Your task to perform on an android device: Search for "amazon basics triple a" on amazon.com, select the first entry, add it to the cart, then select checkout. Image 0: 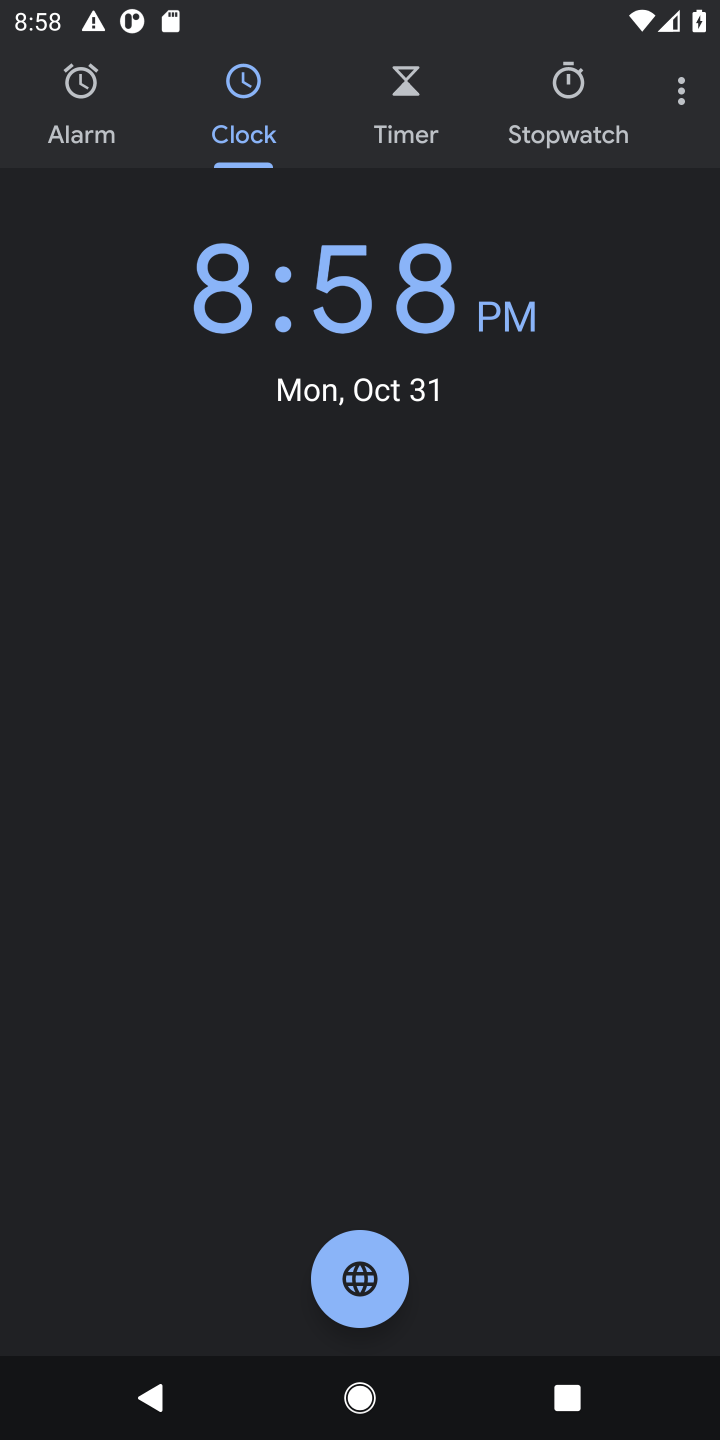
Step 0: press home button
Your task to perform on an android device: Search for "amazon basics triple a" on amazon.com, select the first entry, add it to the cart, then select checkout. Image 1: 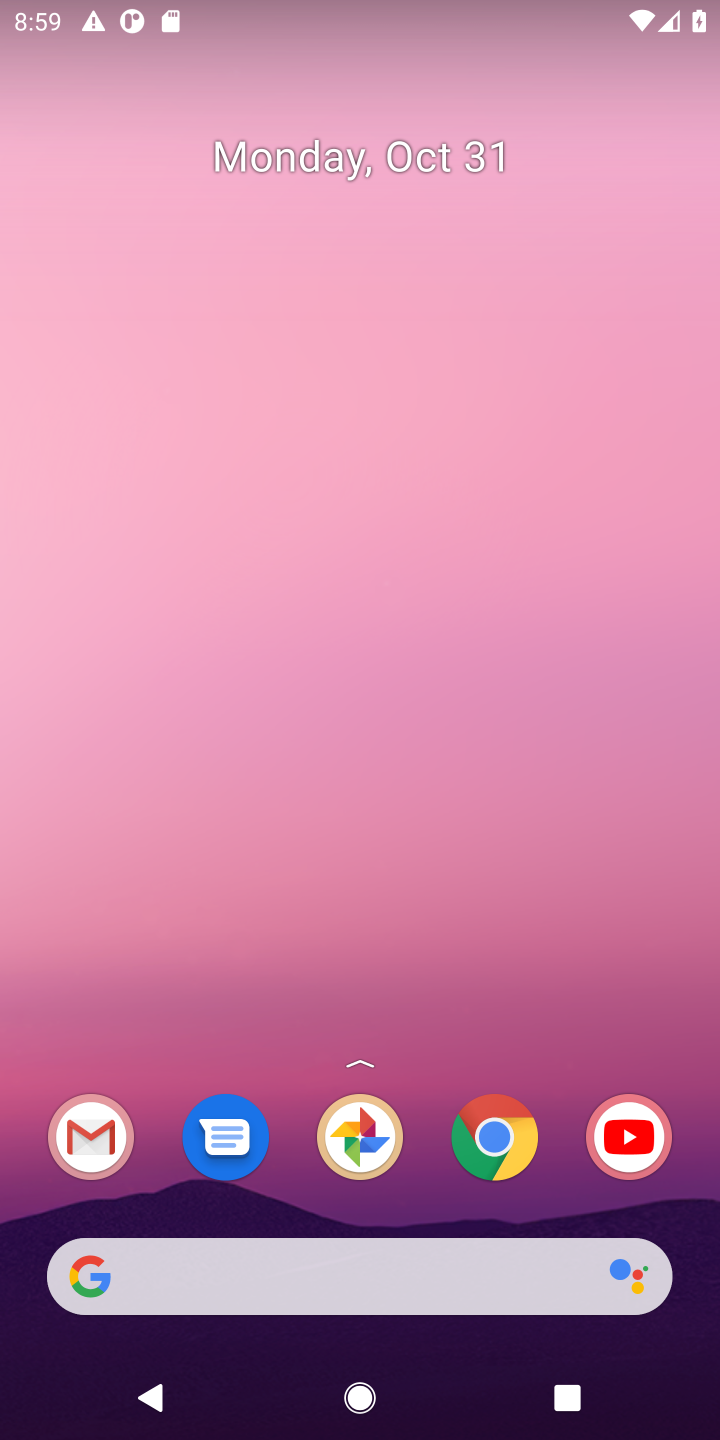
Step 1: click (507, 1129)
Your task to perform on an android device: Search for "amazon basics triple a" on amazon.com, select the first entry, add it to the cart, then select checkout. Image 2: 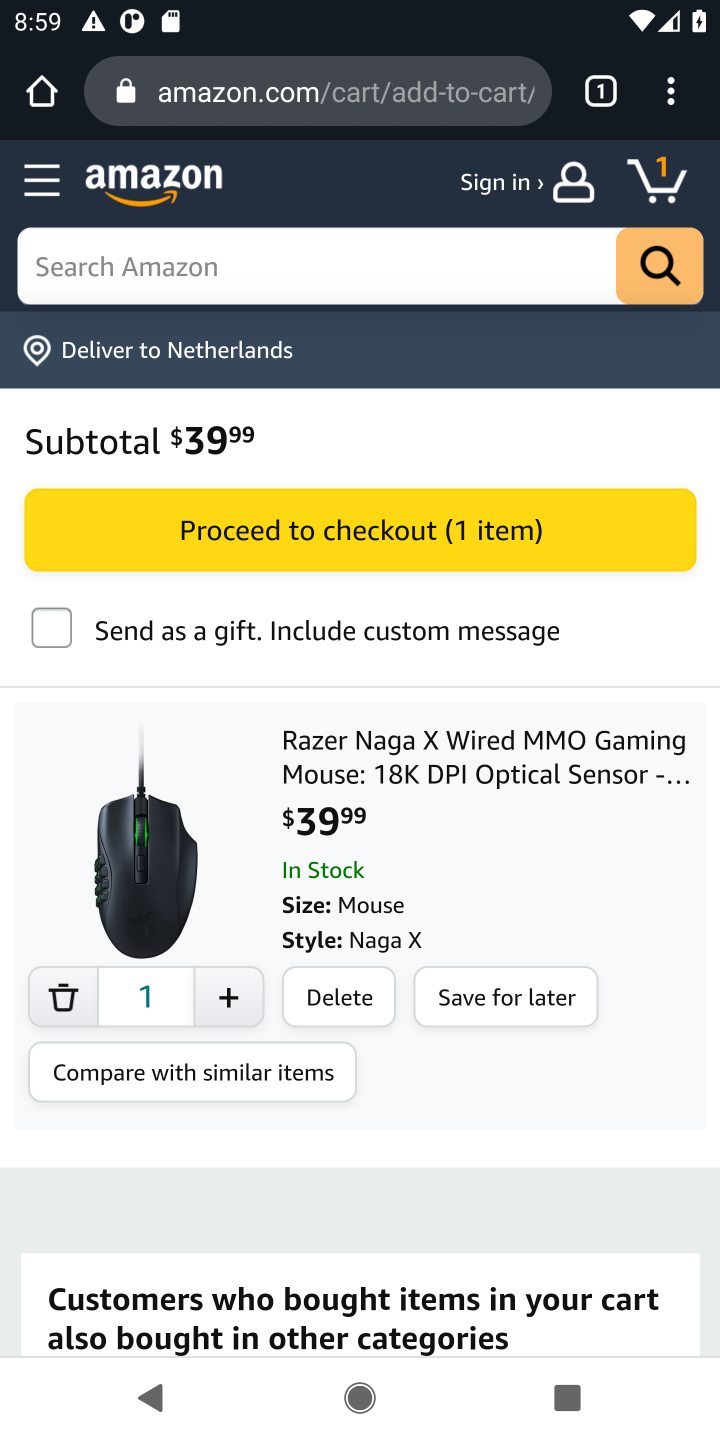
Step 2: click (278, 278)
Your task to perform on an android device: Search for "amazon basics triple a" on amazon.com, select the first entry, add it to the cart, then select checkout. Image 3: 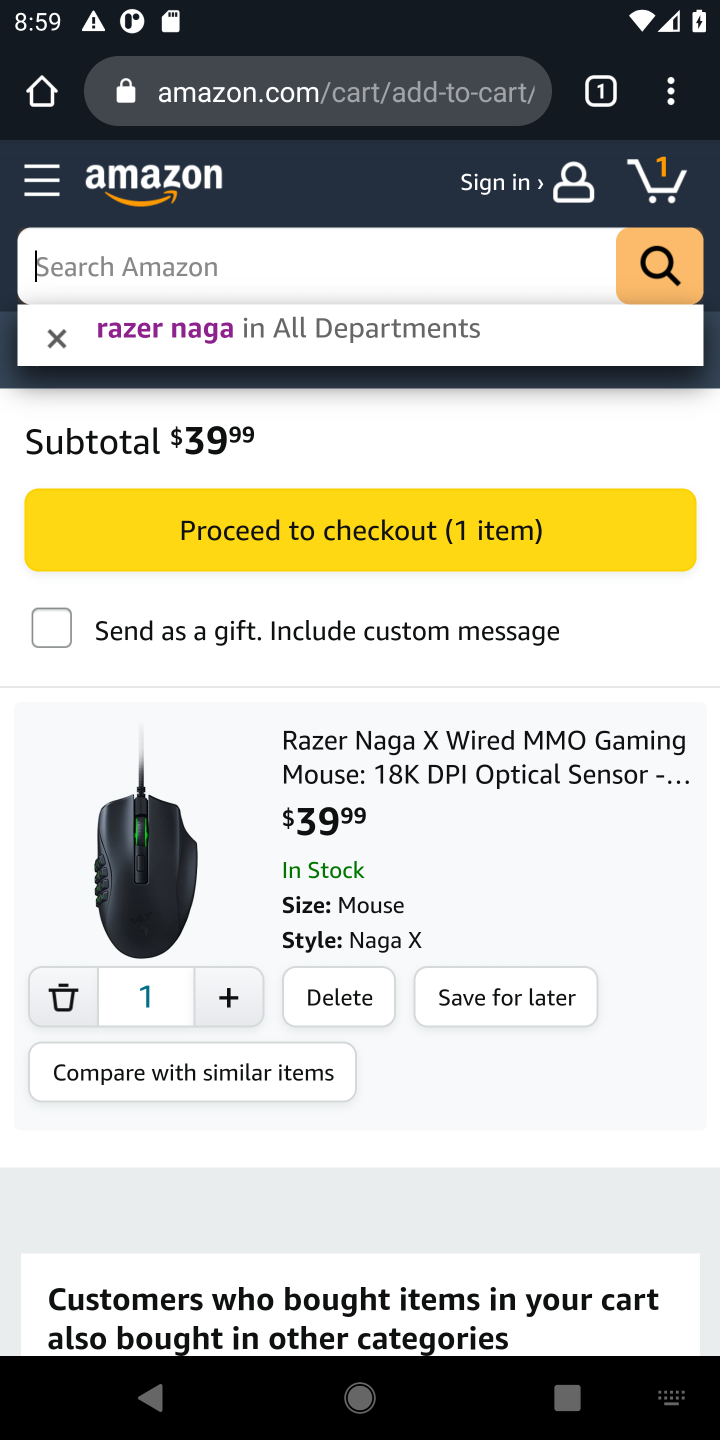
Step 3: type "amazon basics triple a"
Your task to perform on an android device: Search for "amazon basics triple a" on amazon.com, select the first entry, add it to the cart, then select checkout. Image 4: 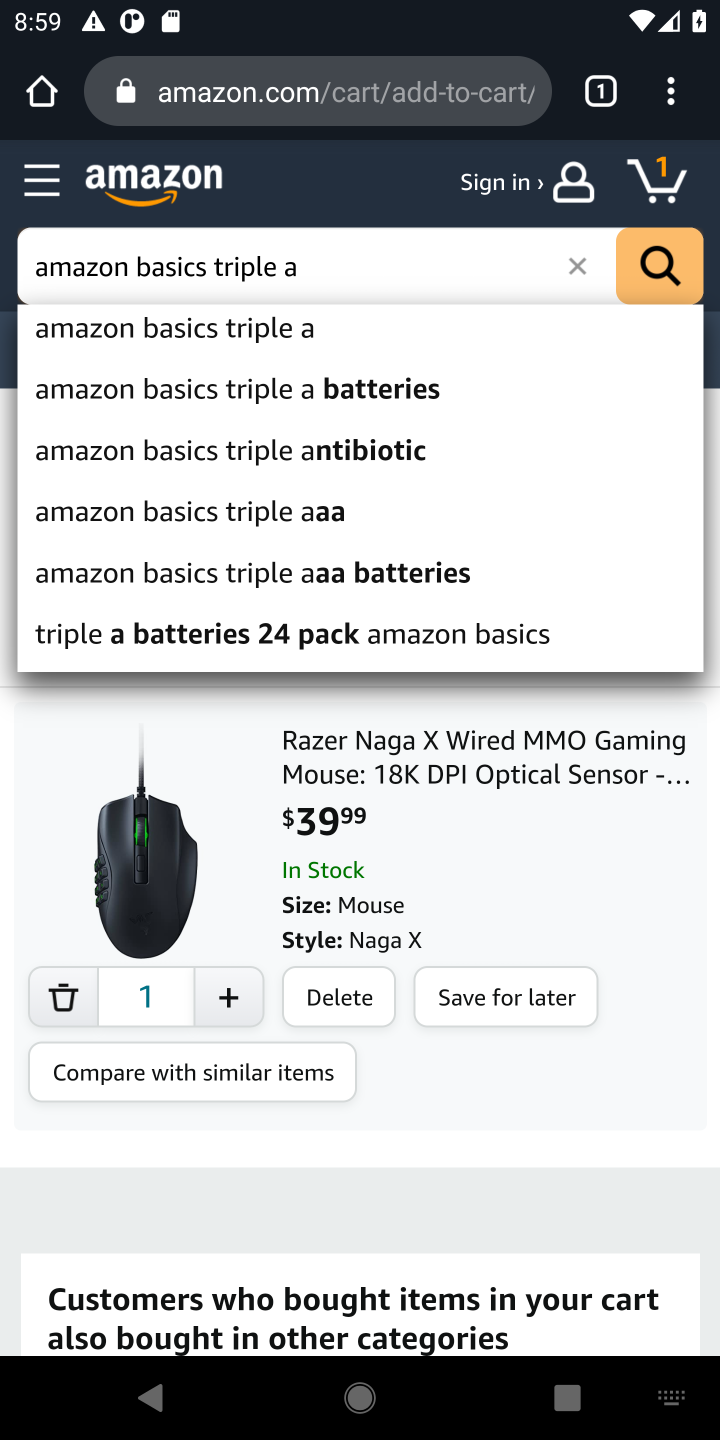
Step 4: click (218, 336)
Your task to perform on an android device: Search for "amazon basics triple a" on amazon.com, select the first entry, add it to the cart, then select checkout. Image 5: 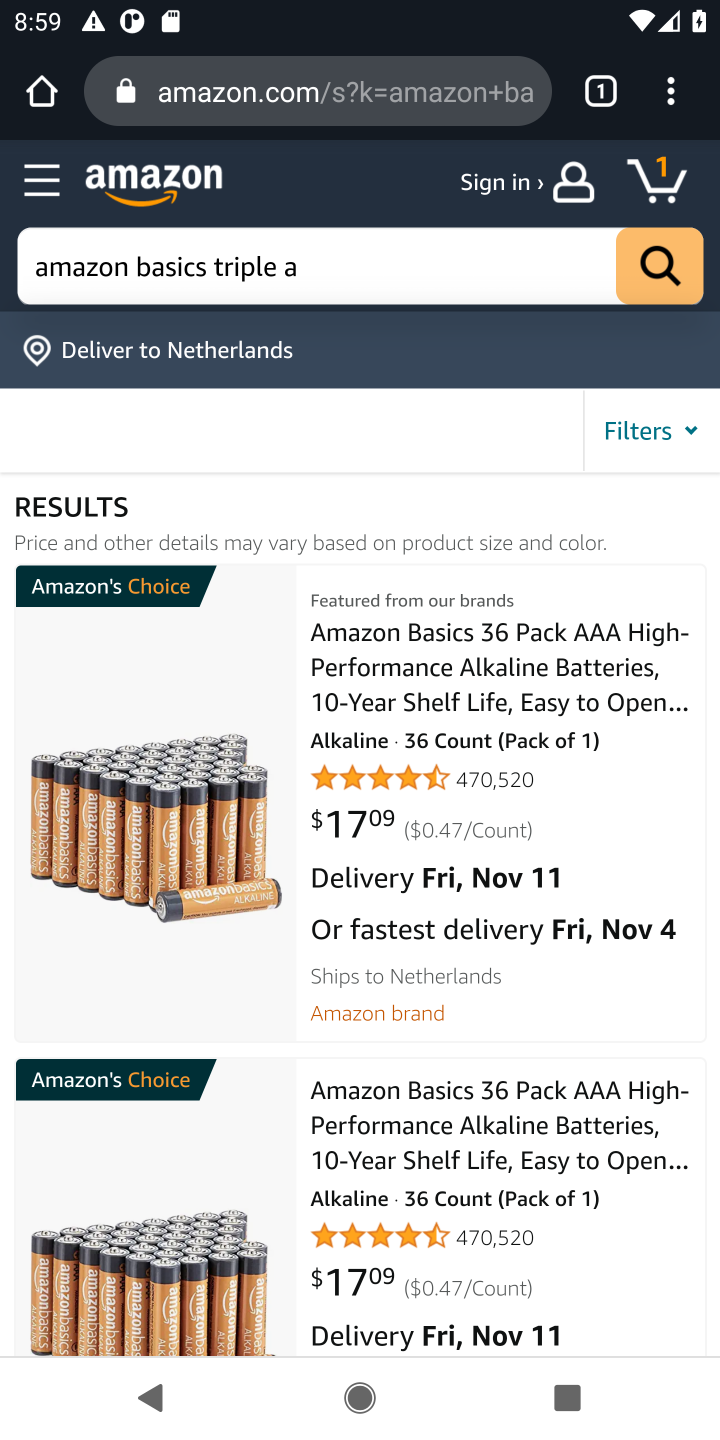
Step 5: click (171, 830)
Your task to perform on an android device: Search for "amazon basics triple a" on amazon.com, select the first entry, add it to the cart, then select checkout. Image 6: 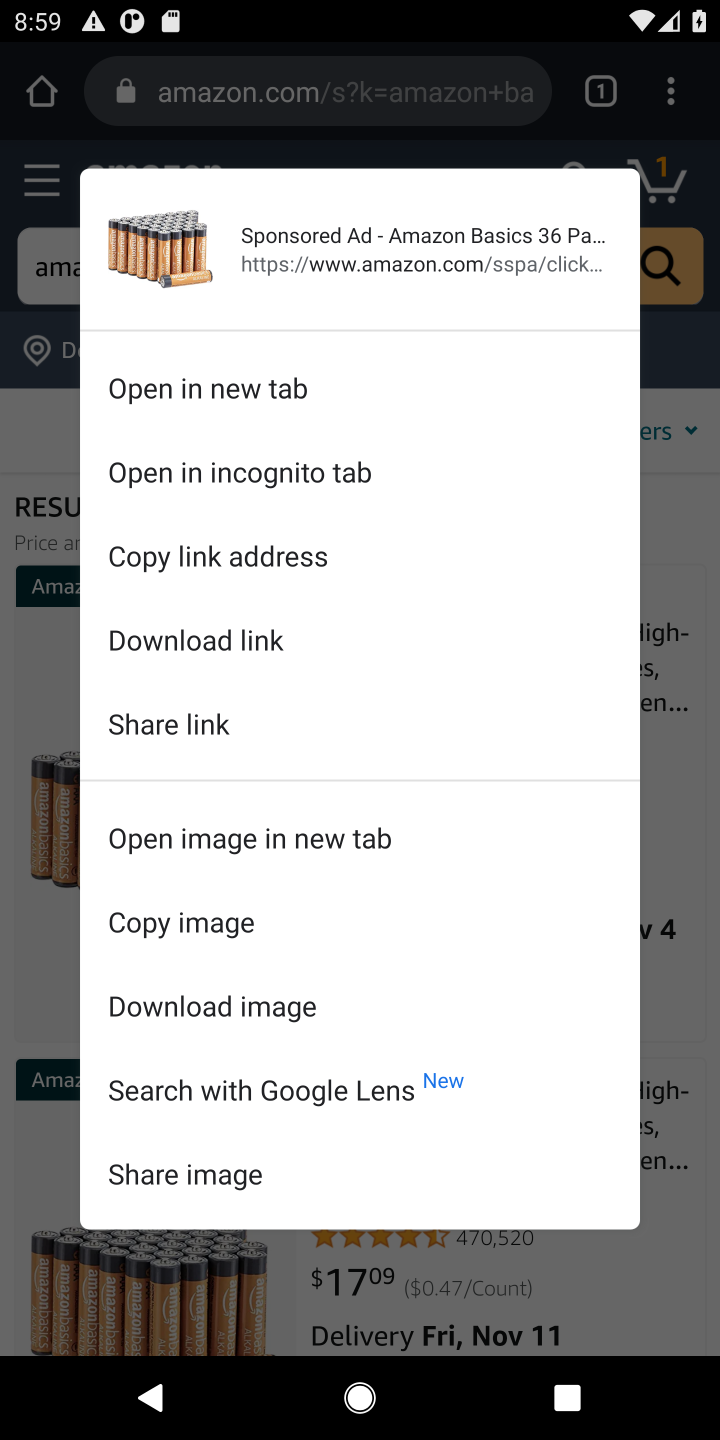
Step 6: click (53, 807)
Your task to perform on an android device: Search for "amazon basics triple a" on amazon.com, select the first entry, add it to the cart, then select checkout. Image 7: 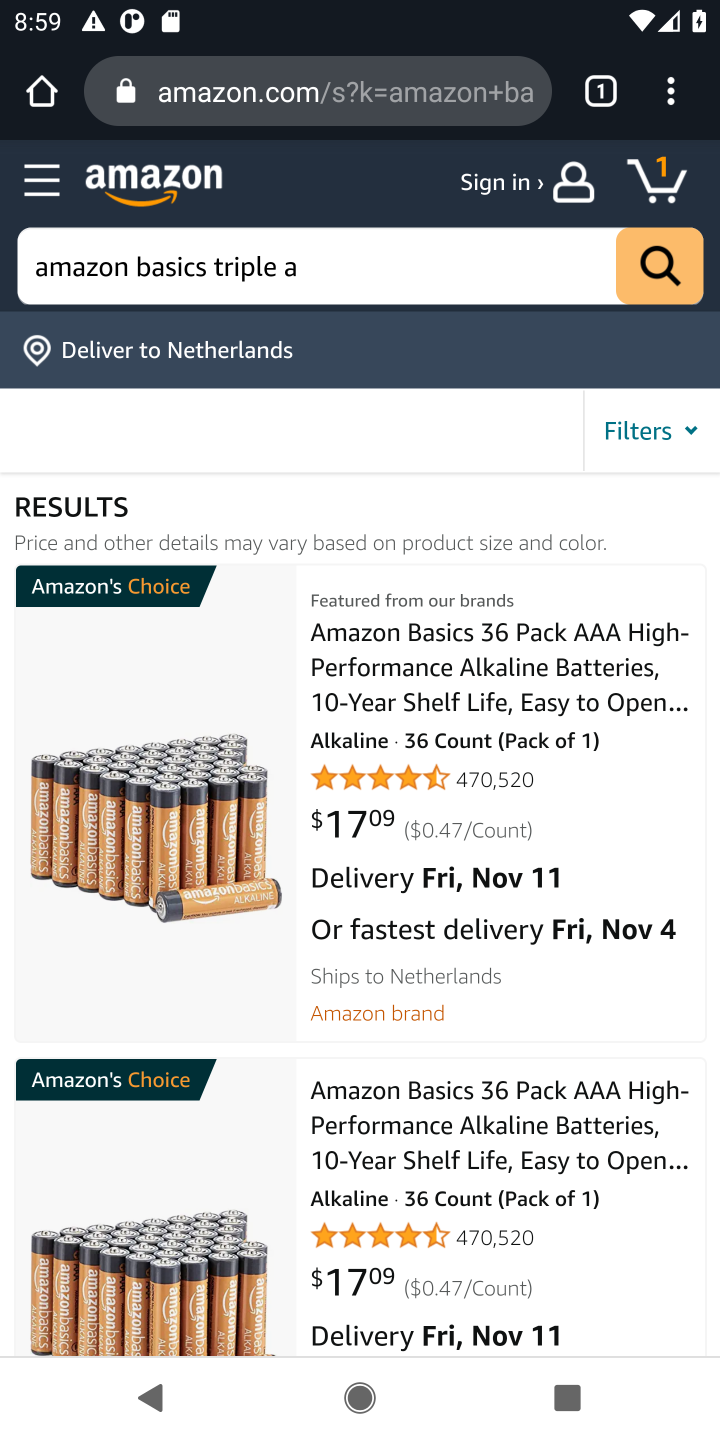
Step 7: click (584, 753)
Your task to perform on an android device: Search for "amazon basics triple a" on amazon.com, select the first entry, add it to the cart, then select checkout. Image 8: 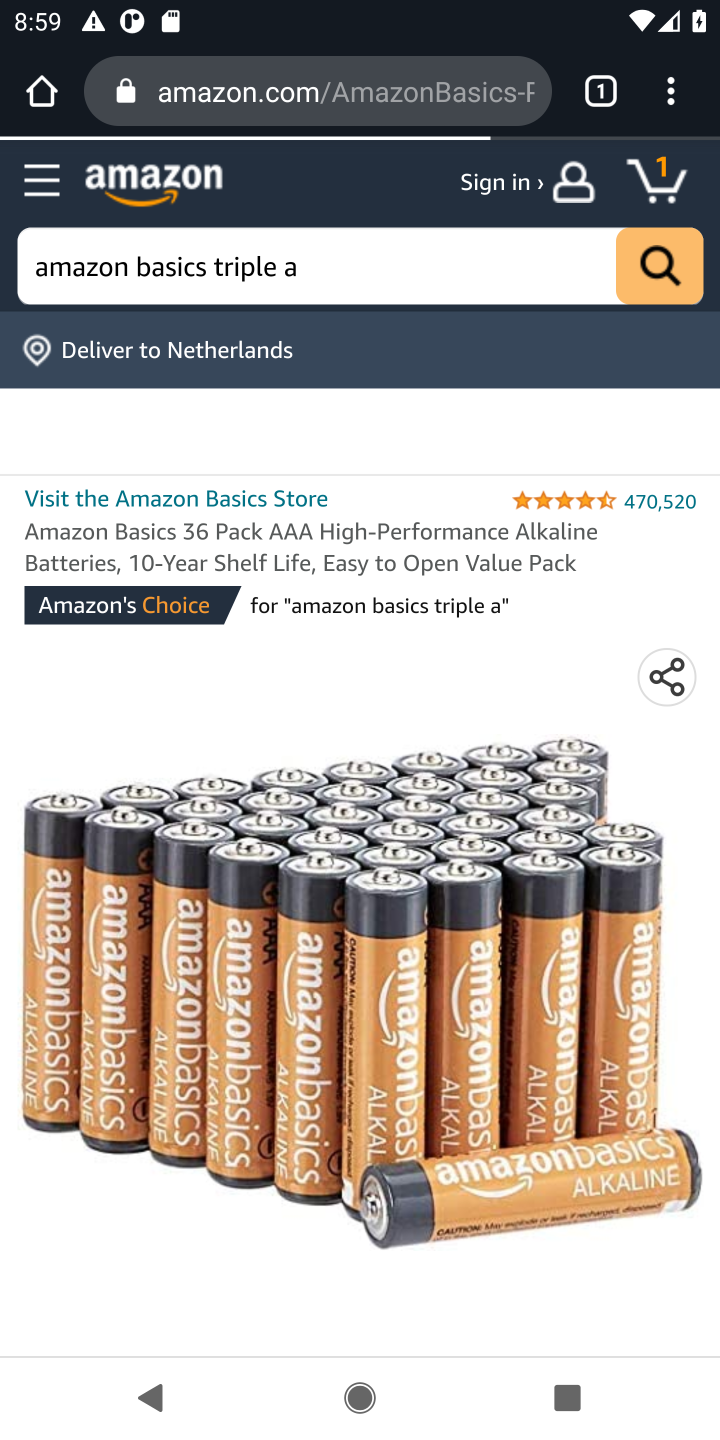
Step 8: drag from (376, 986) to (443, 448)
Your task to perform on an android device: Search for "amazon basics triple a" on amazon.com, select the first entry, add it to the cart, then select checkout. Image 9: 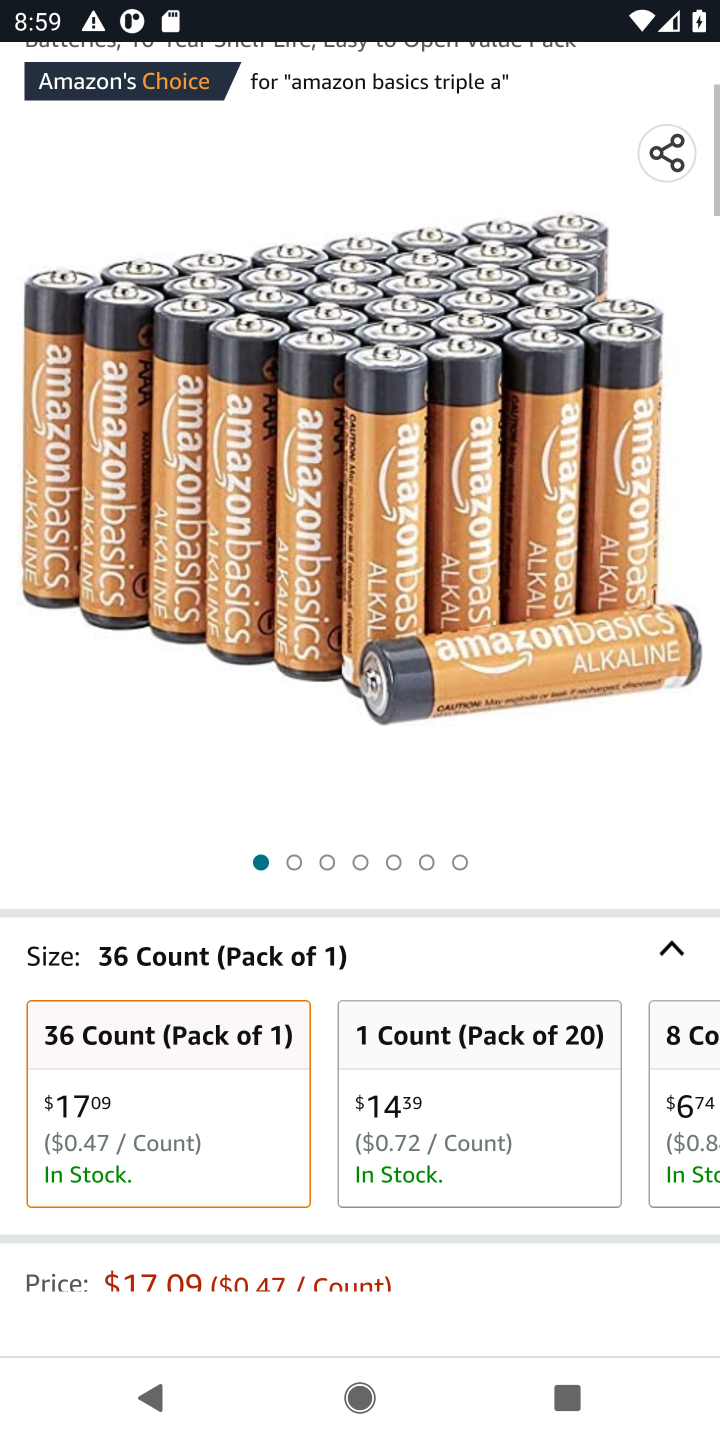
Step 9: drag from (420, 1118) to (455, 476)
Your task to perform on an android device: Search for "amazon basics triple a" on amazon.com, select the first entry, add it to the cart, then select checkout. Image 10: 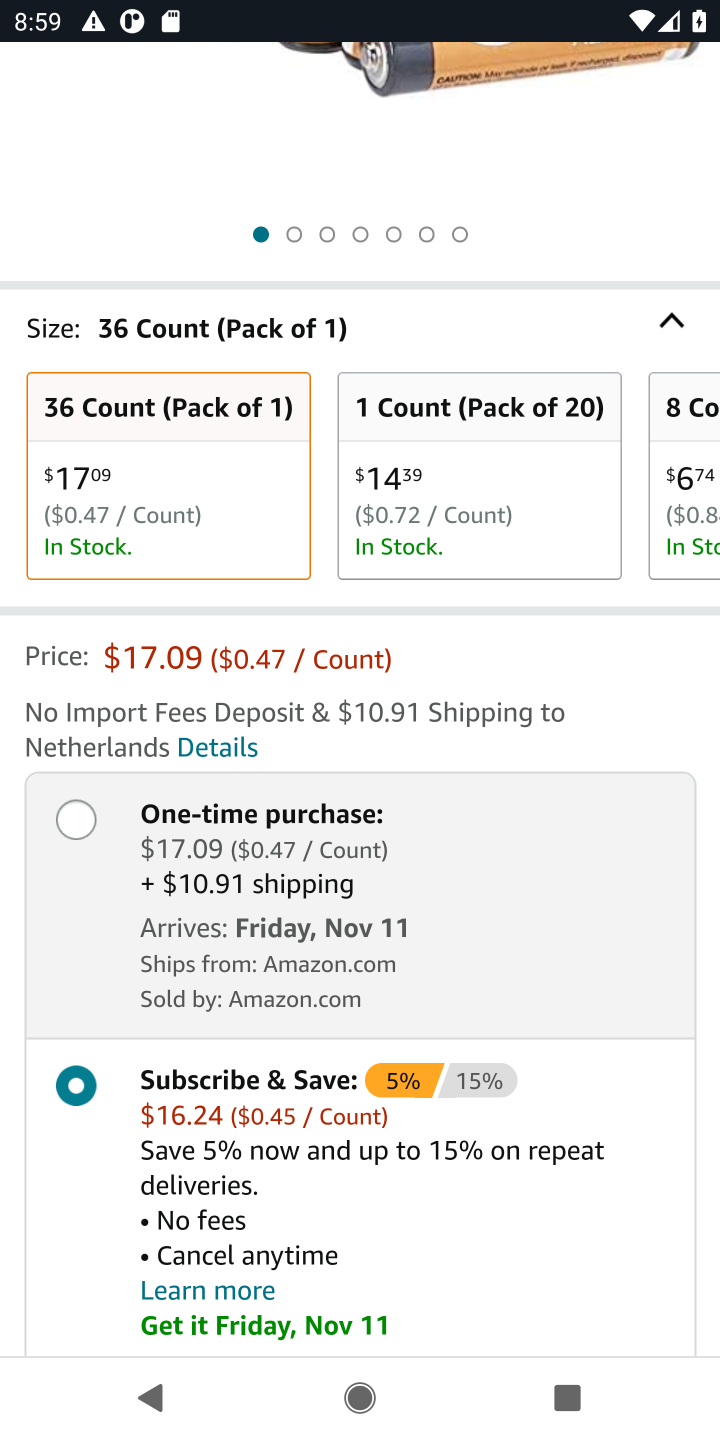
Step 10: drag from (363, 1031) to (407, 471)
Your task to perform on an android device: Search for "amazon basics triple a" on amazon.com, select the first entry, add it to the cart, then select checkout. Image 11: 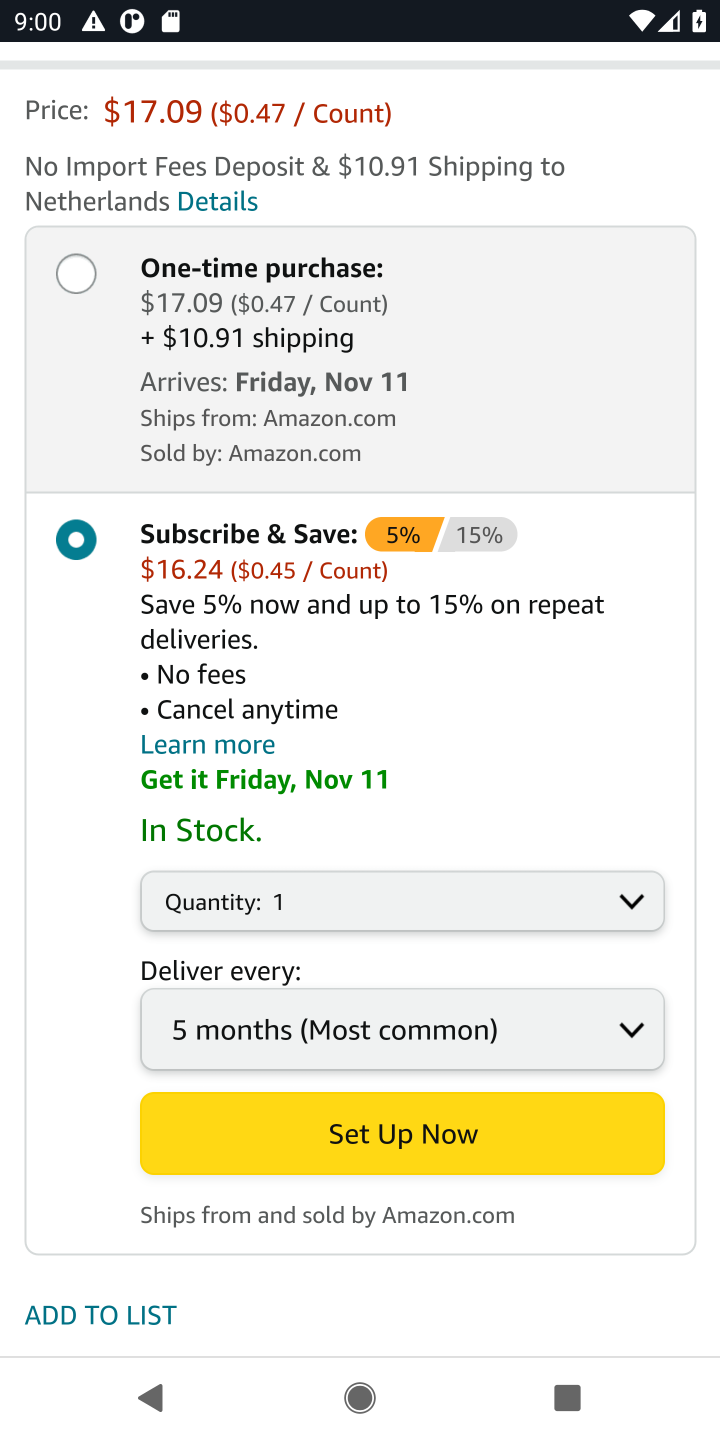
Step 11: click (76, 267)
Your task to perform on an android device: Search for "amazon basics triple a" on amazon.com, select the first entry, add it to the cart, then select checkout. Image 12: 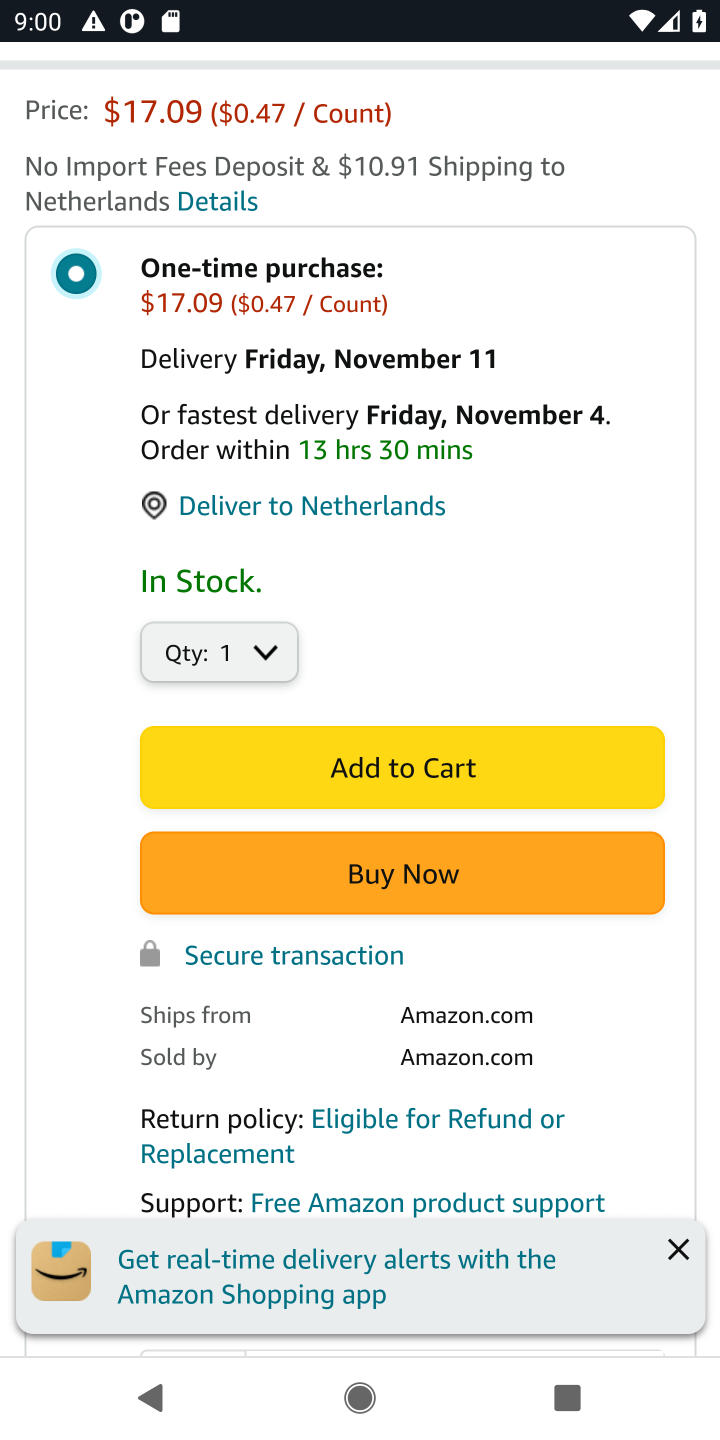
Step 12: click (417, 760)
Your task to perform on an android device: Search for "amazon basics triple a" on amazon.com, select the first entry, add it to the cart, then select checkout. Image 13: 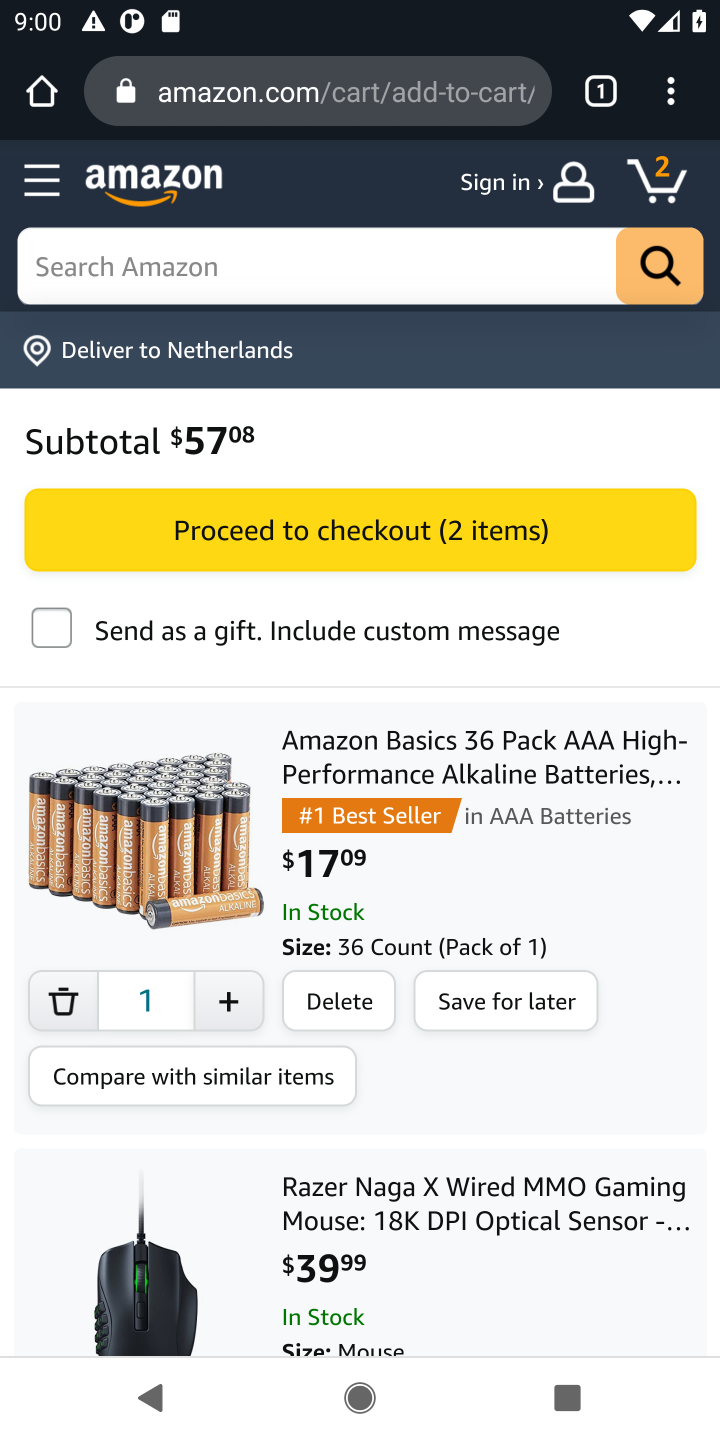
Step 13: click (337, 530)
Your task to perform on an android device: Search for "amazon basics triple a" on amazon.com, select the first entry, add it to the cart, then select checkout. Image 14: 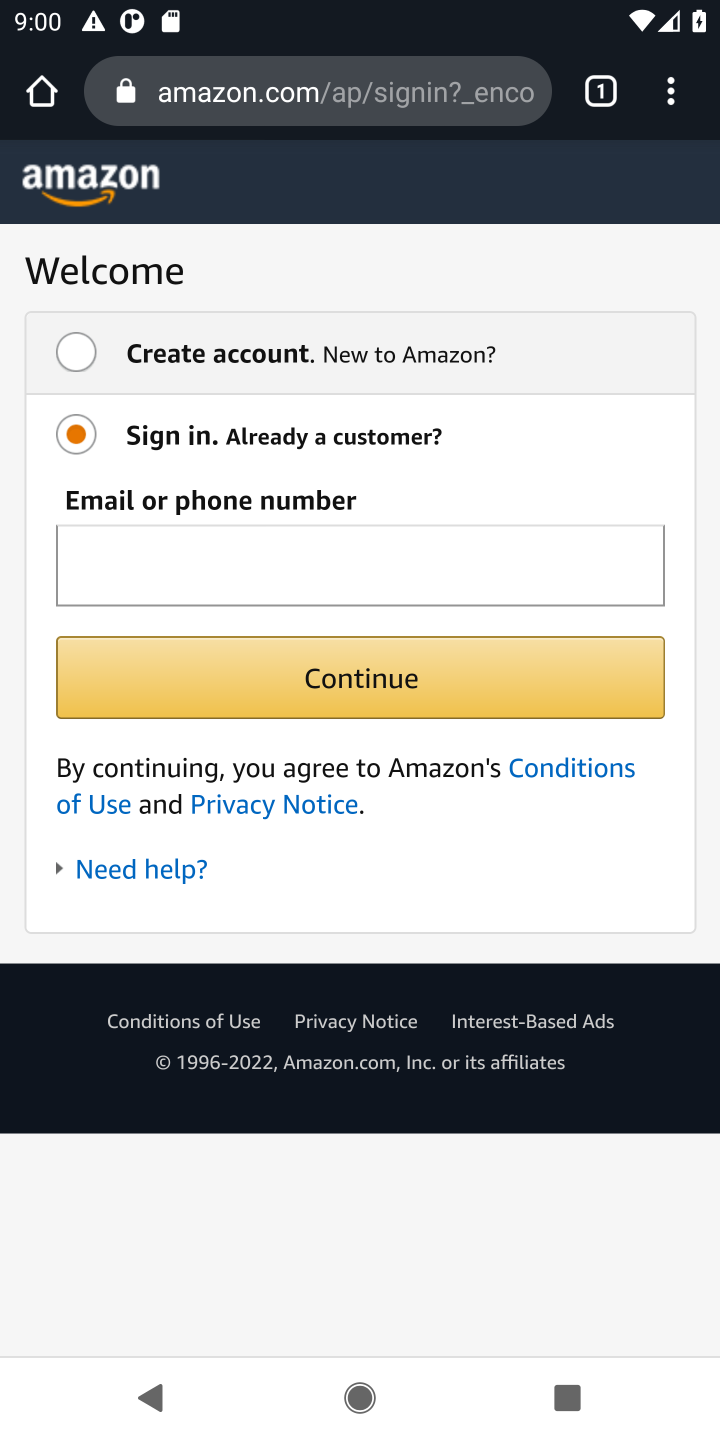
Step 14: task complete